Your task to perform on an android device: Go to Maps Image 0: 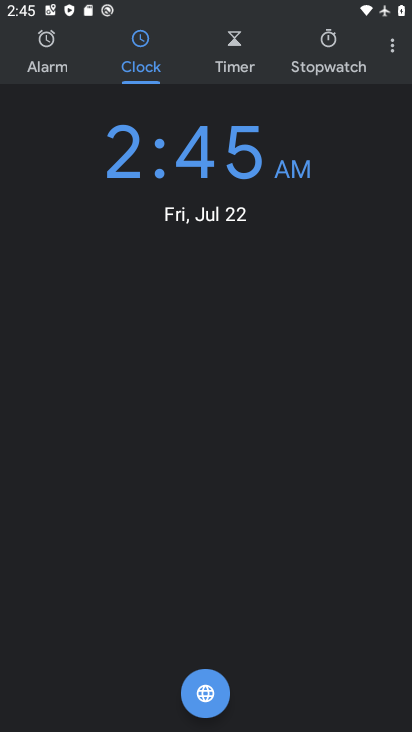
Step 0: click (206, 653)
Your task to perform on an android device: Go to Maps Image 1: 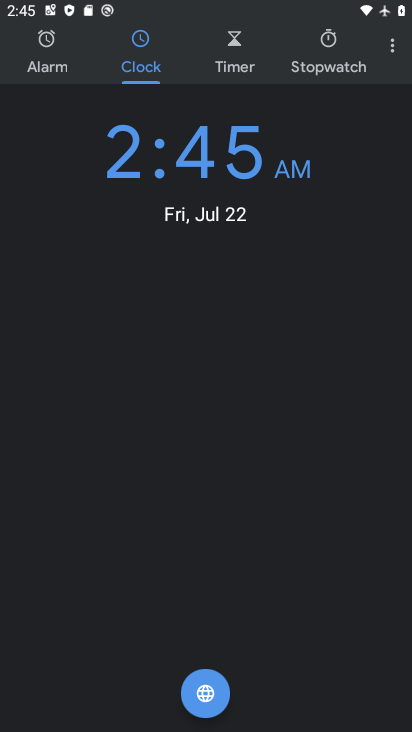
Step 1: press home button
Your task to perform on an android device: Go to Maps Image 2: 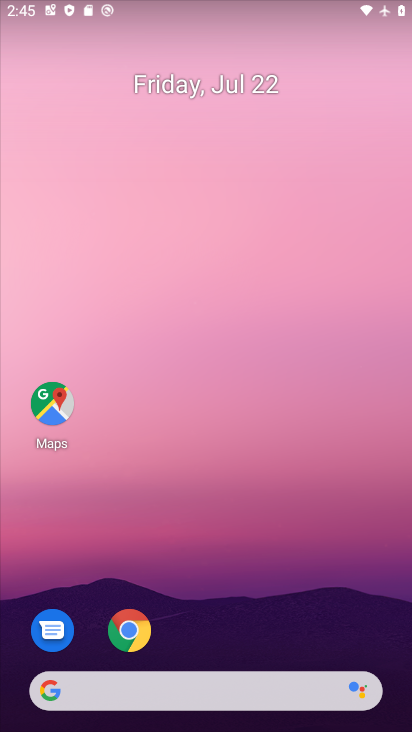
Step 2: drag from (224, 654) to (132, 8)
Your task to perform on an android device: Go to Maps Image 3: 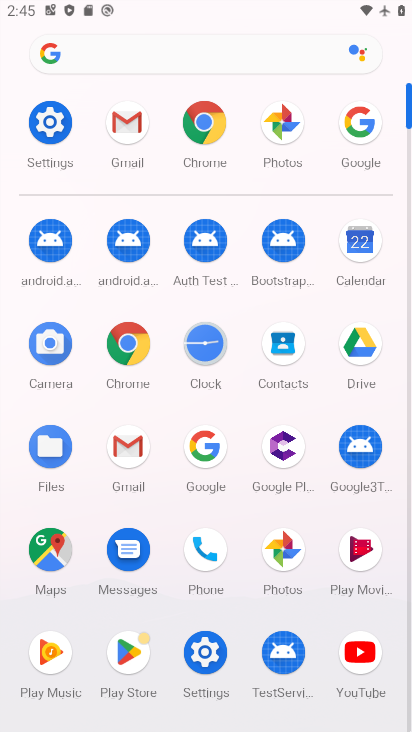
Step 3: click (61, 128)
Your task to perform on an android device: Go to Maps Image 4: 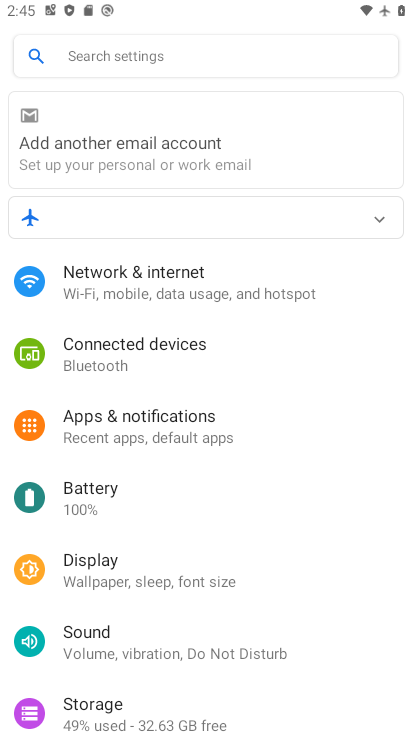
Step 4: press back button
Your task to perform on an android device: Go to Maps Image 5: 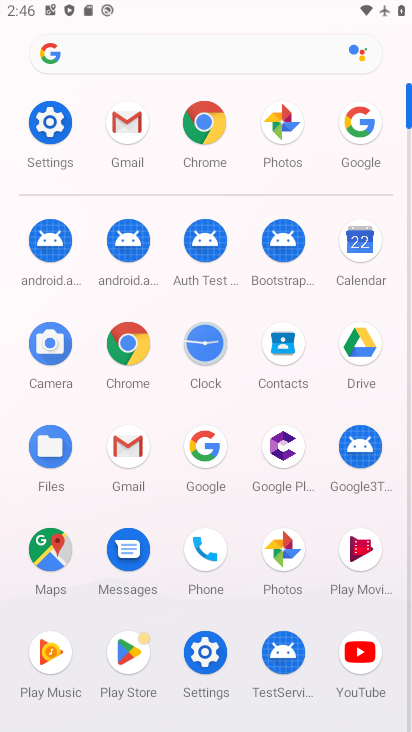
Step 5: click (65, 555)
Your task to perform on an android device: Go to Maps Image 6: 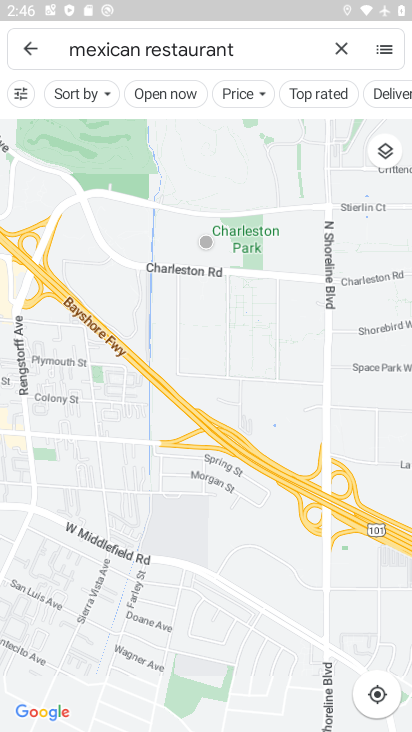
Step 6: task complete